Your task to perform on an android device: Open network settings Image 0: 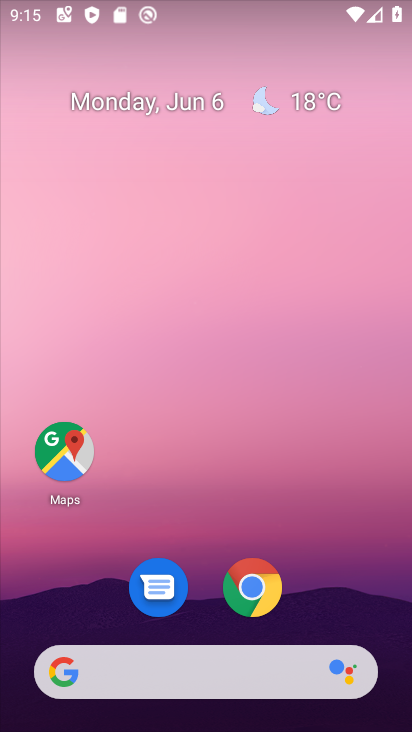
Step 0: drag from (206, 675) to (156, 153)
Your task to perform on an android device: Open network settings Image 1: 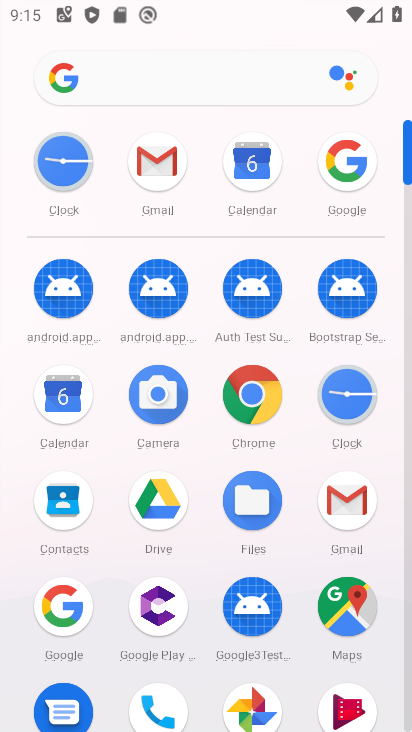
Step 1: drag from (211, 556) to (181, 123)
Your task to perform on an android device: Open network settings Image 2: 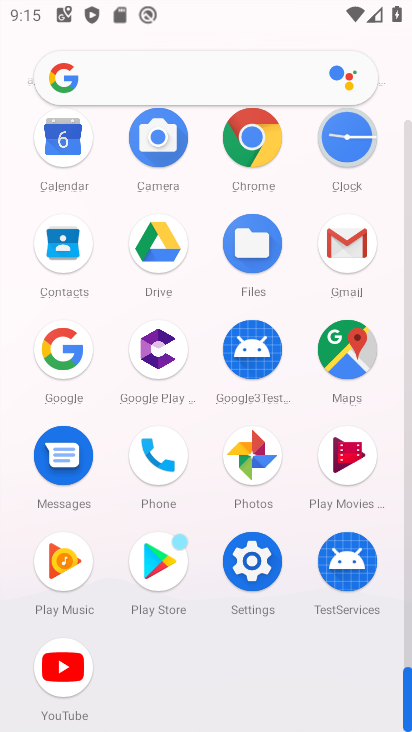
Step 2: click (241, 571)
Your task to perform on an android device: Open network settings Image 3: 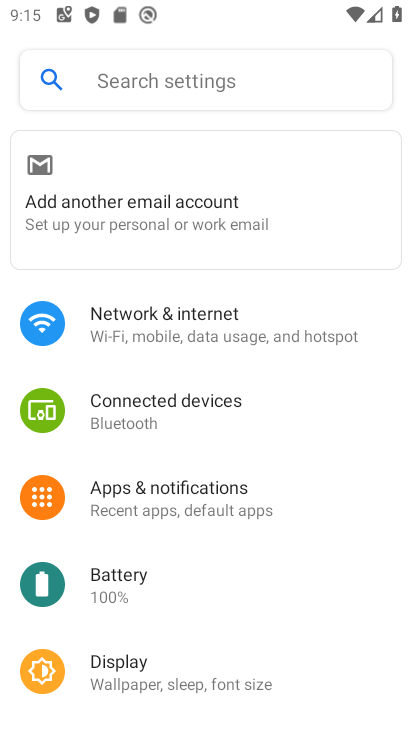
Step 3: click (185, 331)
Your task to perform on an android device: Open network settings Image 4: 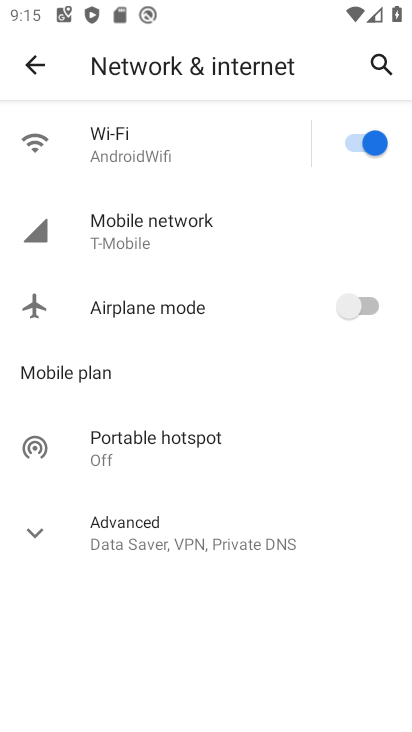
Step 4: task complete